Your task to perform on an android device: What's on my calendar tomorrow? Image 0: 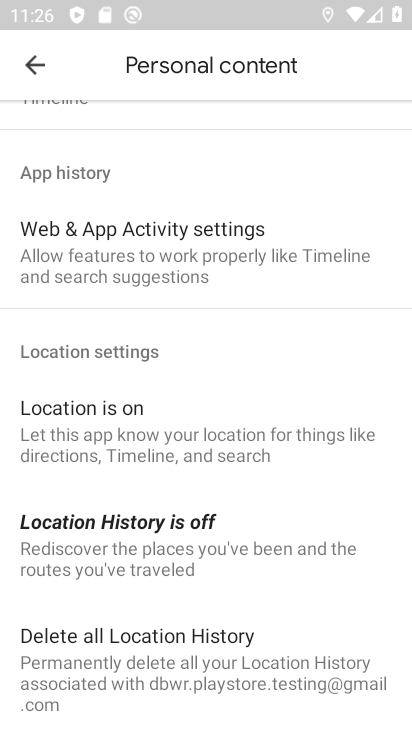
Step 0: press home button
Your task to perform on an android device: What's on my calendar tomorrow? Image 1: 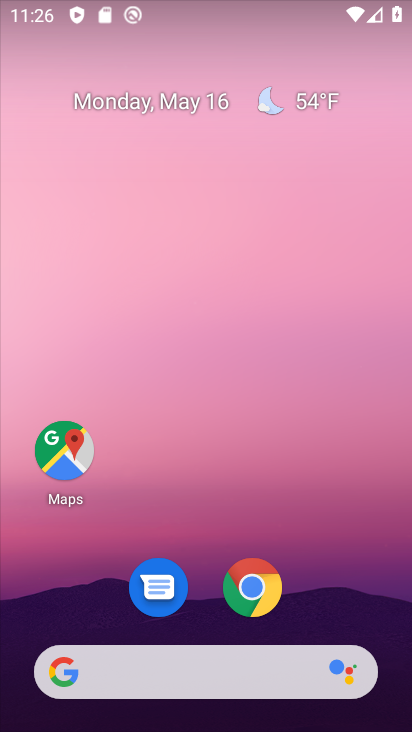
Step 1: drag from (205, 558) to (276, 31)
Your task to perform on an android device: What's on my calendar tomorrow? Image 2: 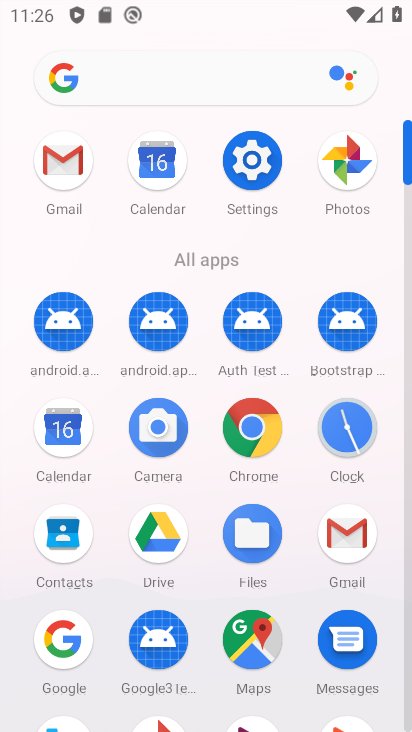
Step 2: click (50, 412)
Your task to perform on an android device: What's on my calendar tomorrow? Image 3: 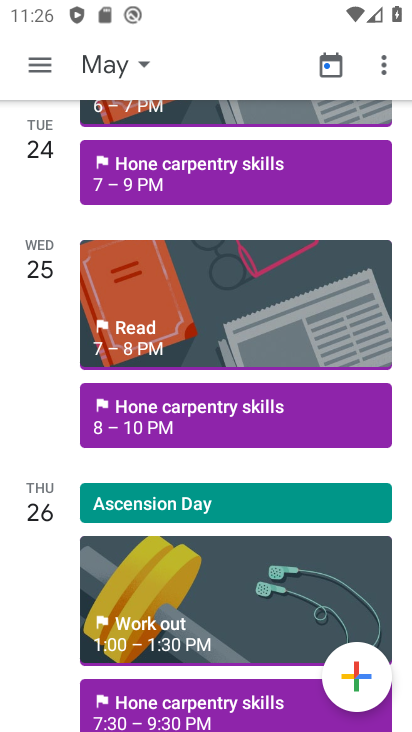
Step 3: click (48, 62)
Your task to perform on an android device: What's on my calendar tomorrow? Image 4: 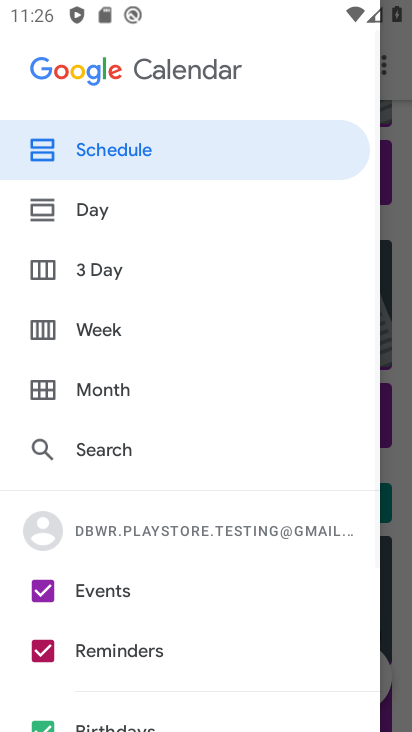
Step 4: click (123, 270)
Your task to perform on an android device: What's on my calendar tomorrow? Image 5: 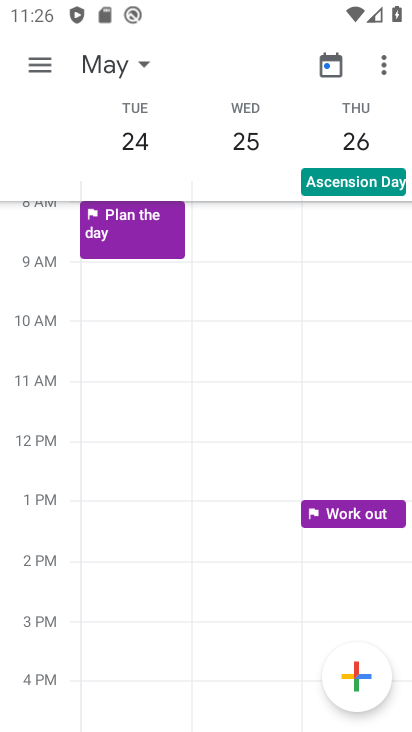
Step 5: task complete